Your task to perform on an android device: open chrome privacy settings Image 0: 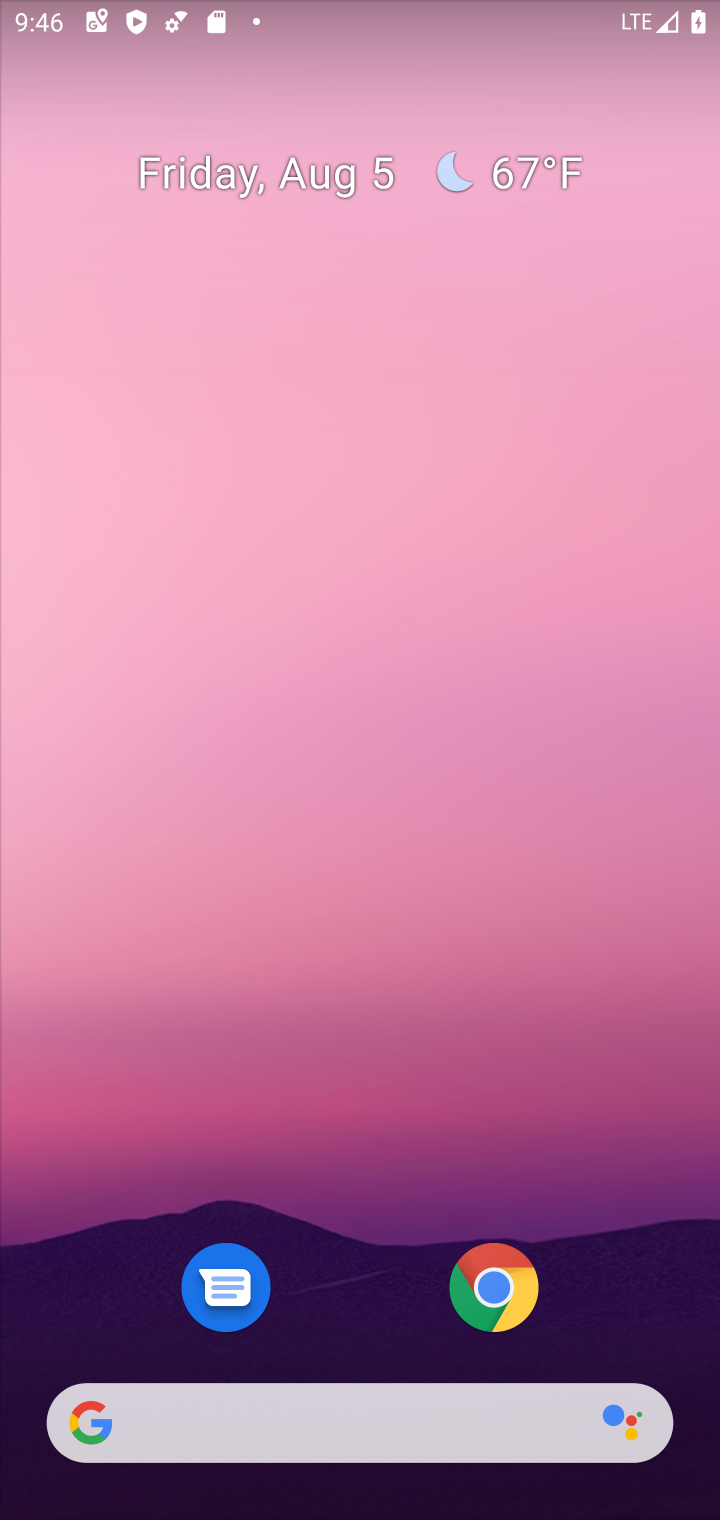
Step 0: click (492, 1287)
Your task to perform on an android device: open chrome privacy settings Image 1: 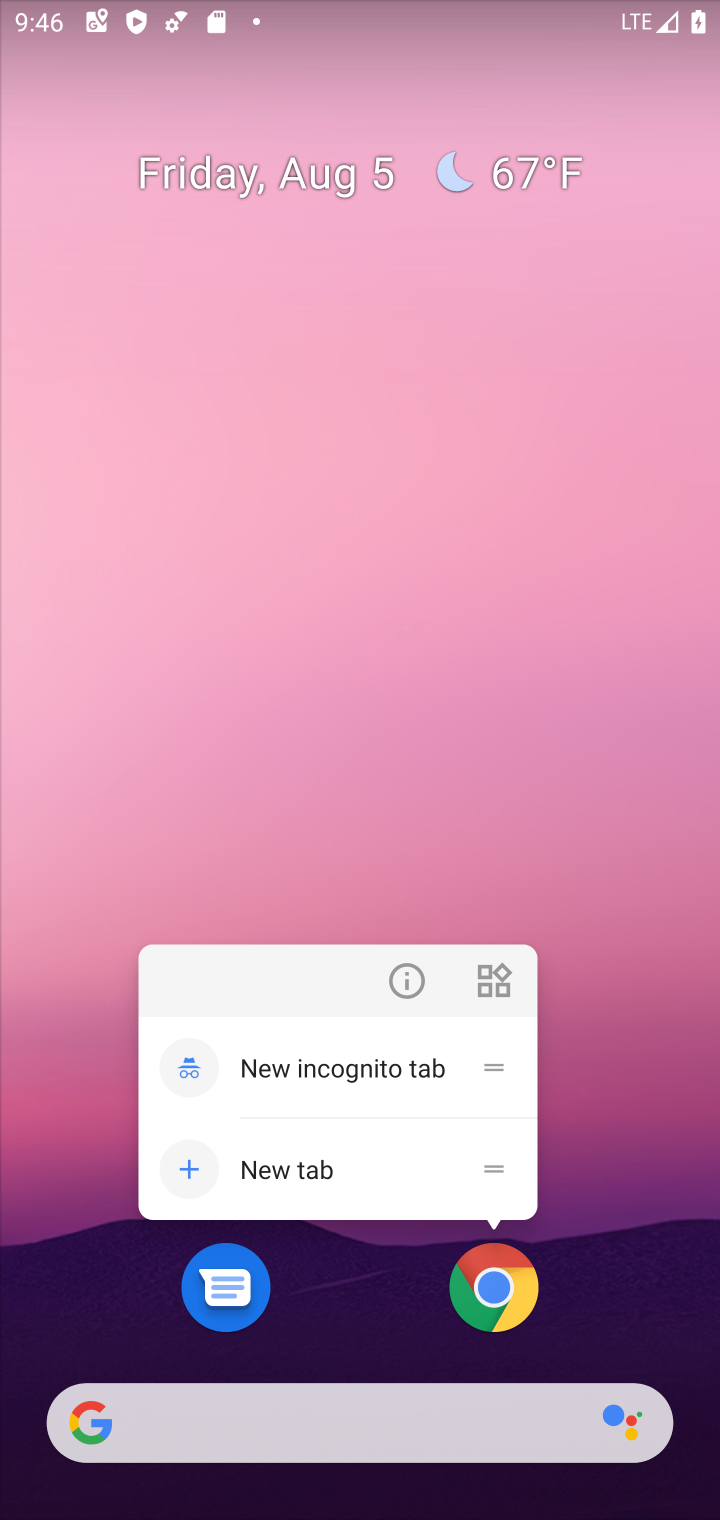
Step 1: click (491, 1288)
Your task to perform on an android device: open chrome privacy settings Image 2: 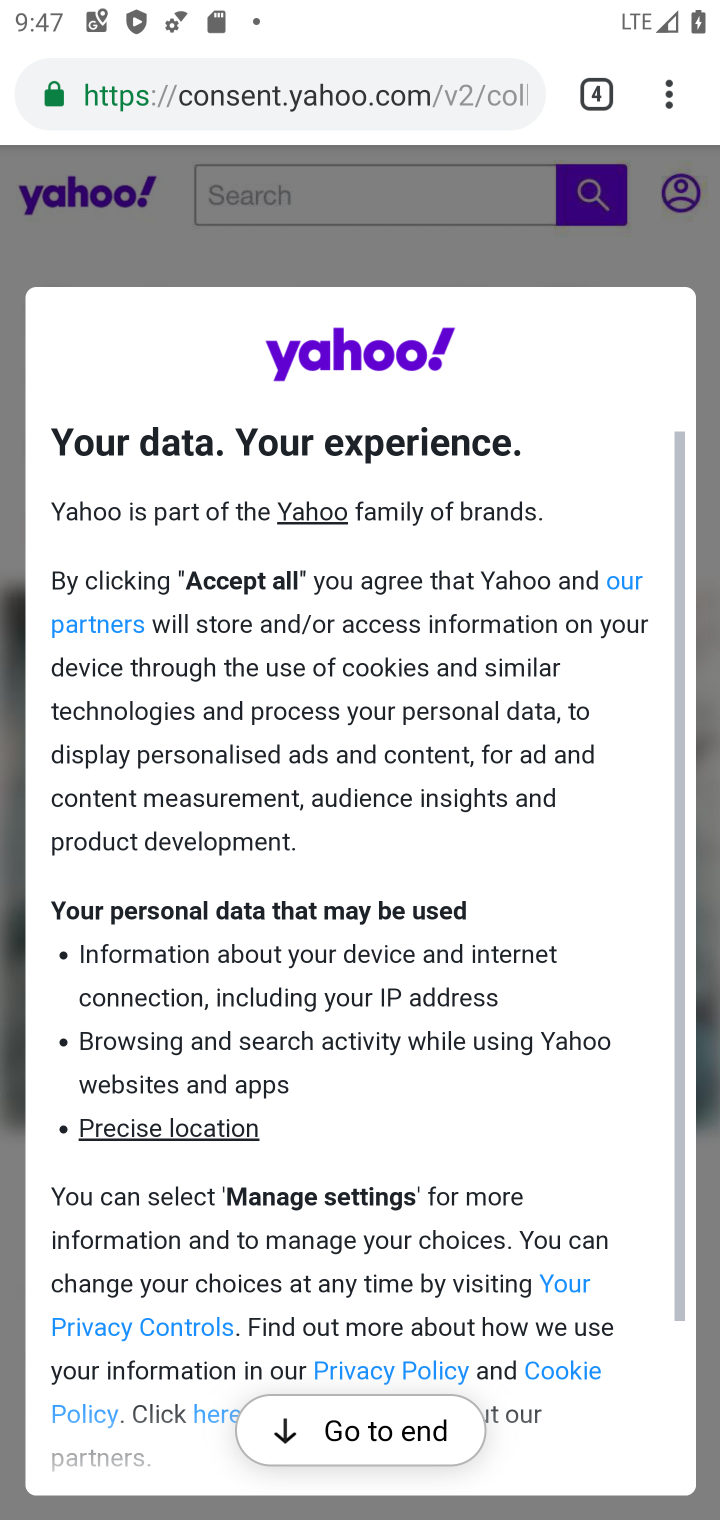
Step 2: click (669, 104)
Your task to perform on an android device: open chrome privacy settings Image 3: 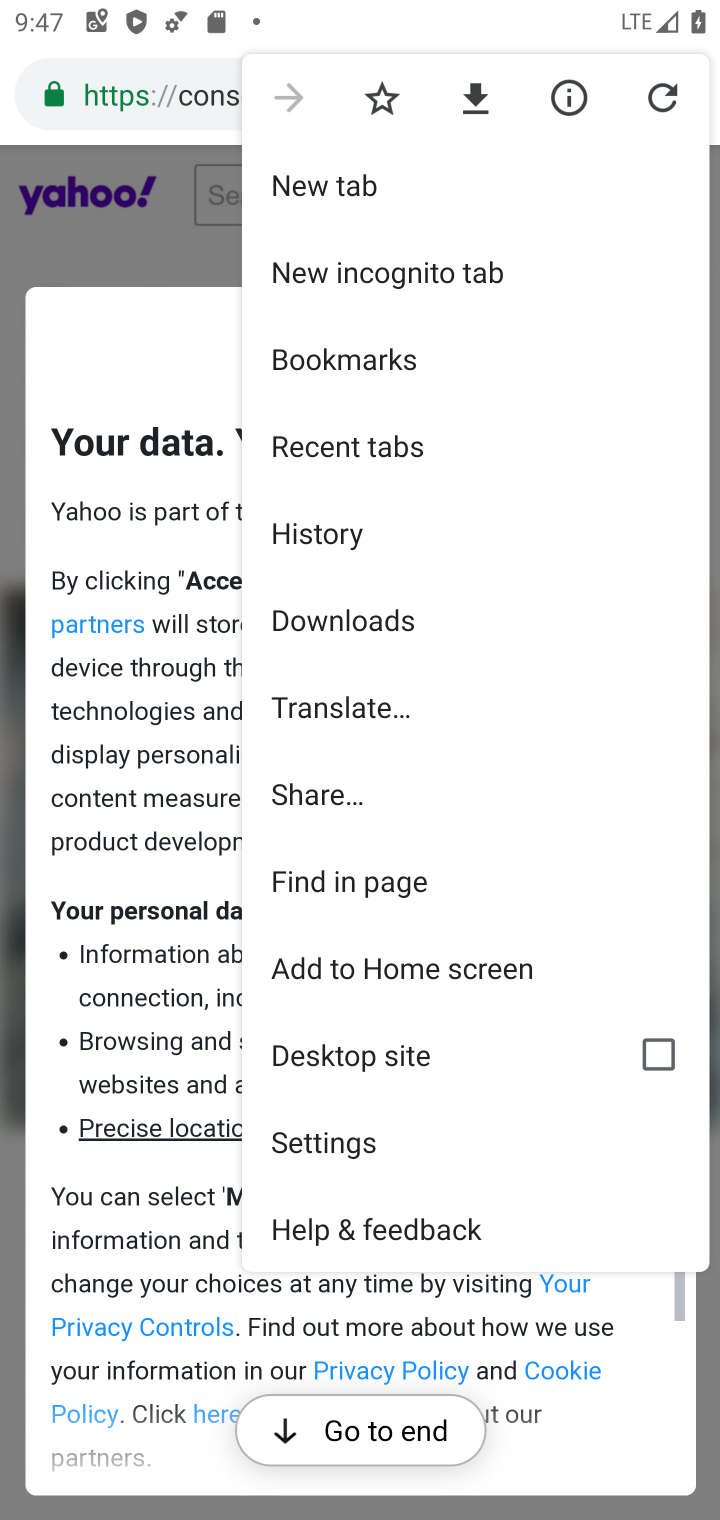
Step 3: click (297, 1138)
Your task to perform on an android device: open chrome privacy settings Image 4: 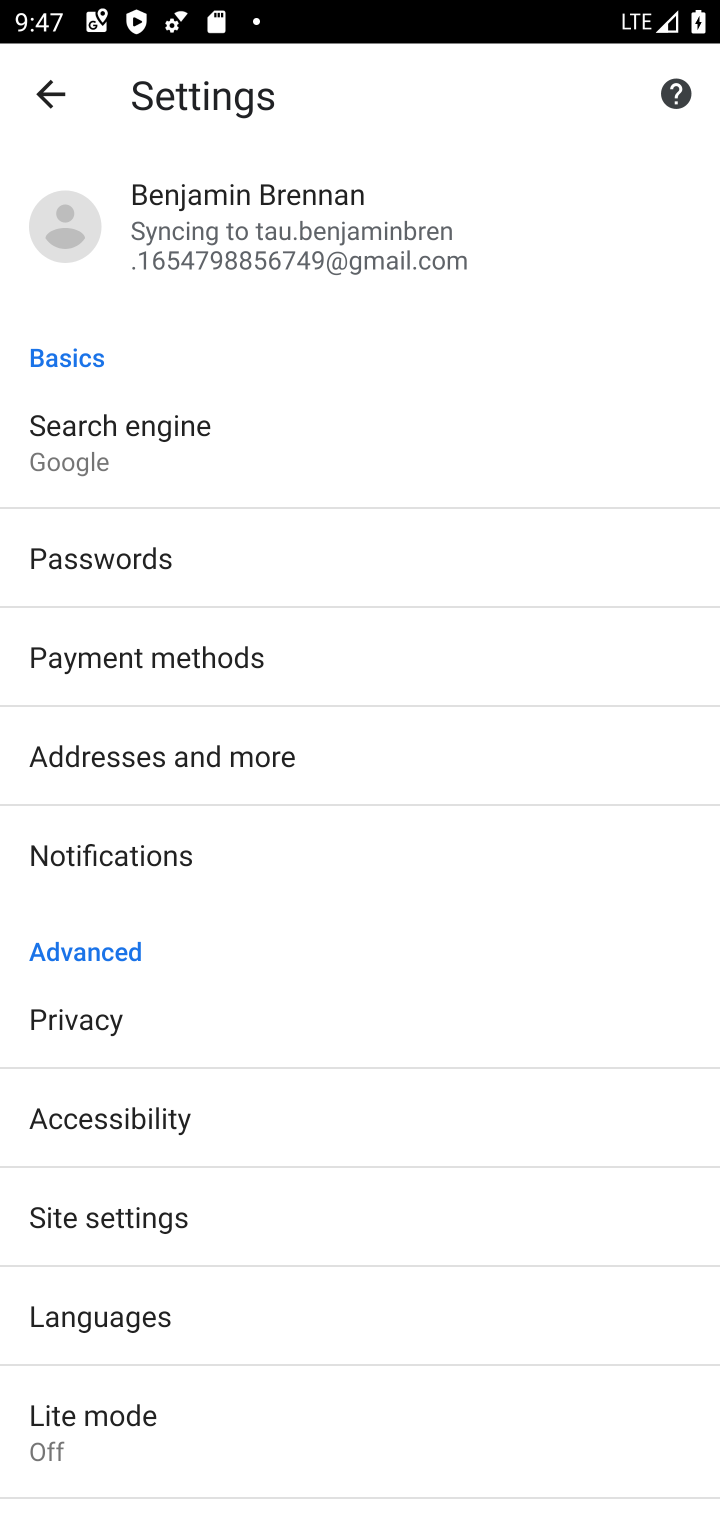
Step 4: click (79, 1023)
Your task to perform on an android device: open chrome privacy settings Image 5: 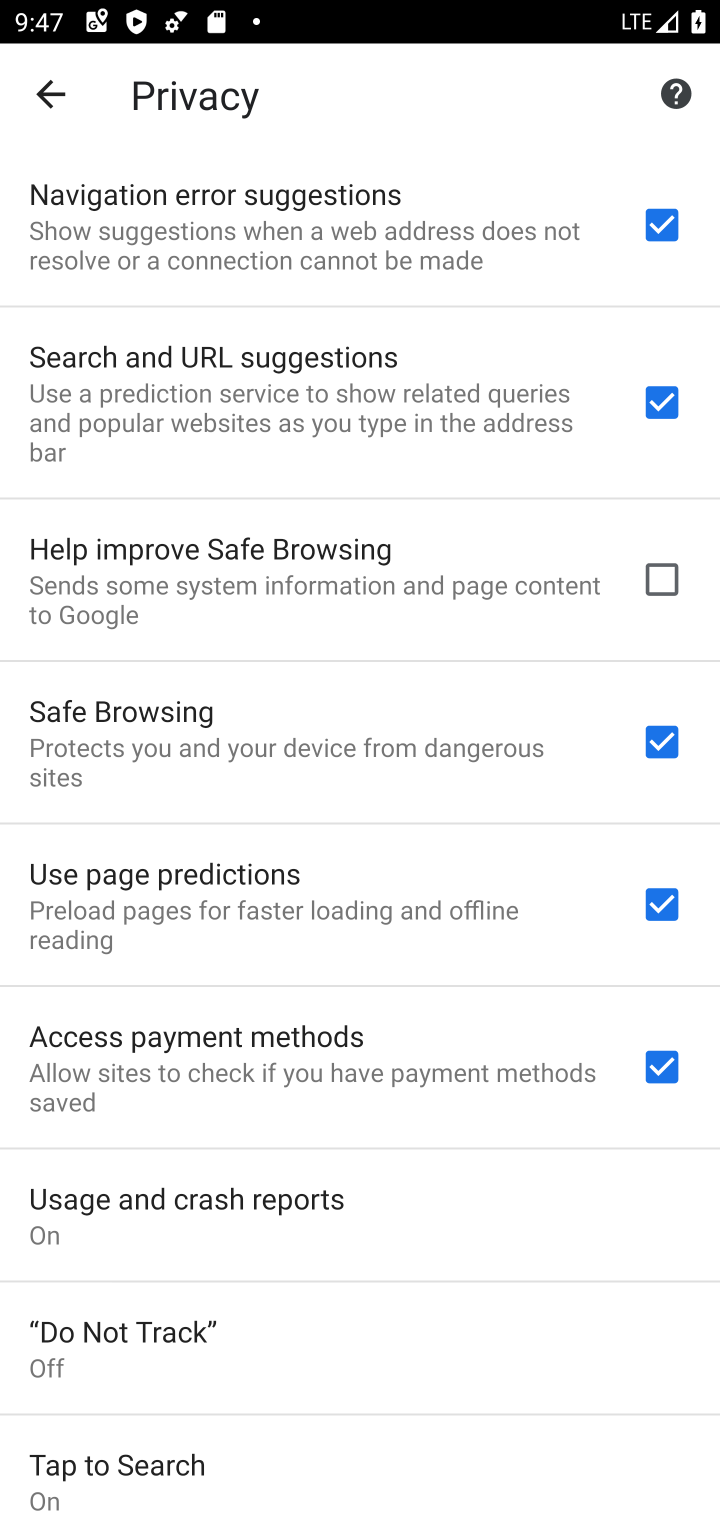
Step 5: task complete